Your task to perform on an android device: toggle notification dots Image 0: 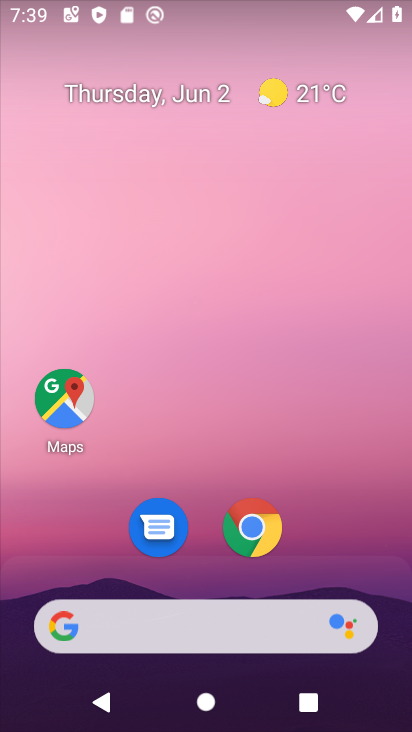
Step 0: drag from (366, 576) to (375, 94)
Your task to perform on an android device: toggle notification dots Image 1: 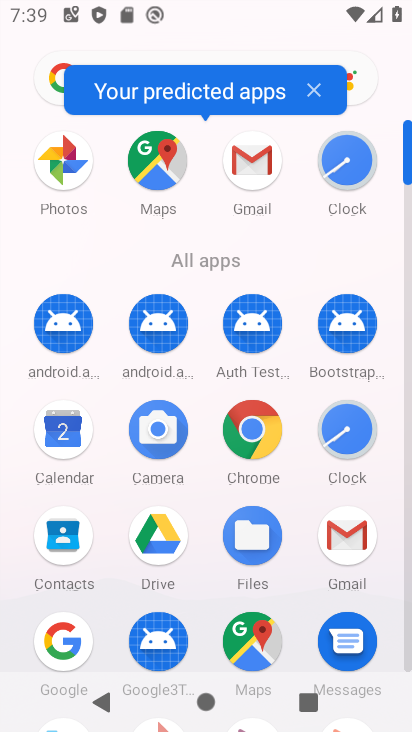
Step 1: drag from (324, 290) to (317, 95)
Your task to perform on an android device: toggle notification dots Image 2: 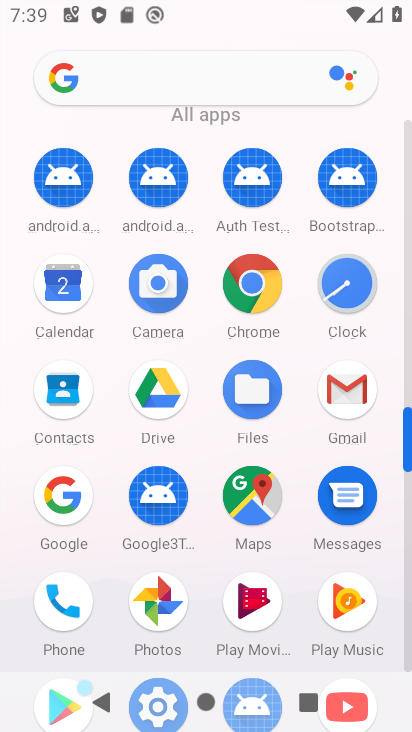
Step 2: drag from (287, 565) to (273, 358)
Your task to perform on an android device: toggle notification dots Image 3: 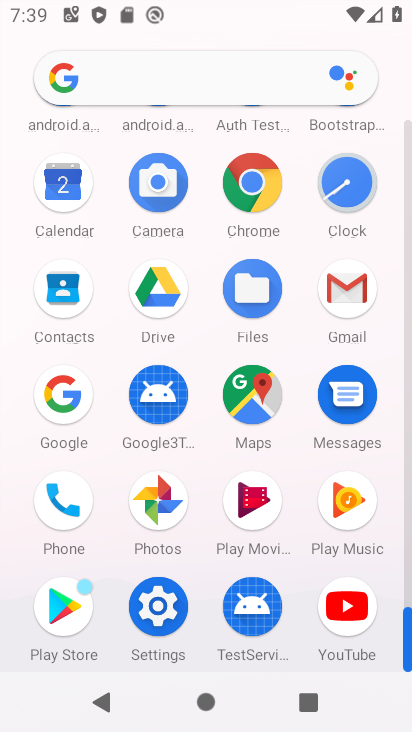
Step 3: click (163, 628)
Your task to perform on an android device: toggle notification dots Image 4: 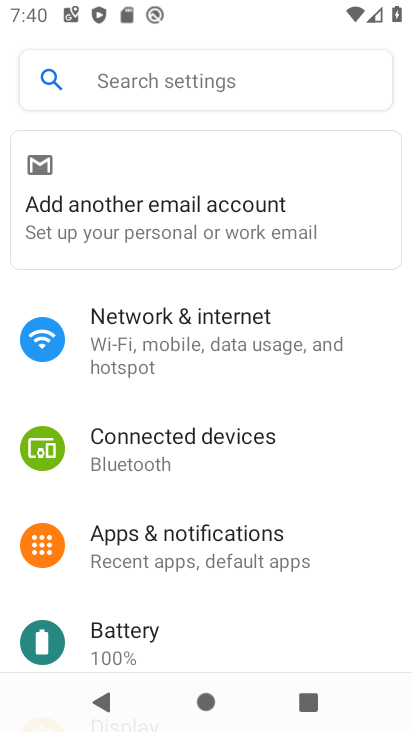
Step 4: click (156, 548)
Your task to perform on an android device: toggle notification dots Image 5: 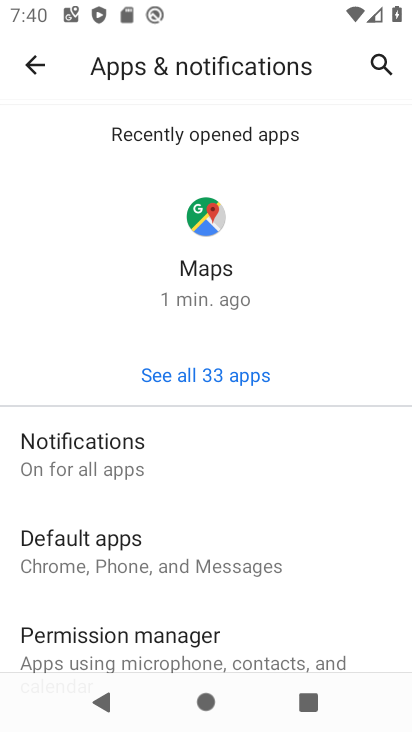
Step 5: click (179, 455)
Your task to perform on an android device: toggle notification dots Image 6: 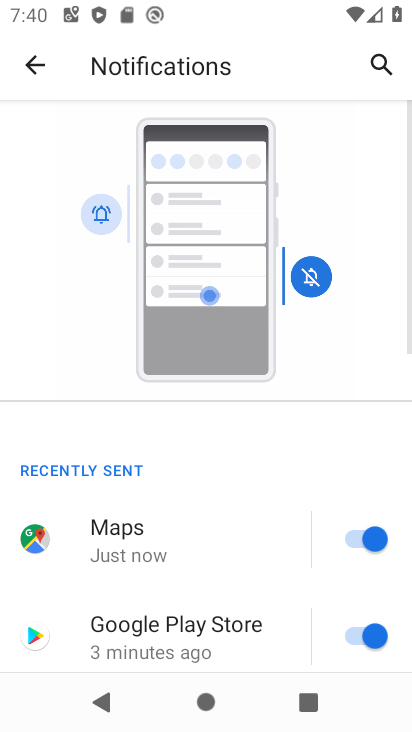
Step 6: drag from (204, 632) to (237, 327)
Your task to perform on an android device: toggle notification dots Image 7: 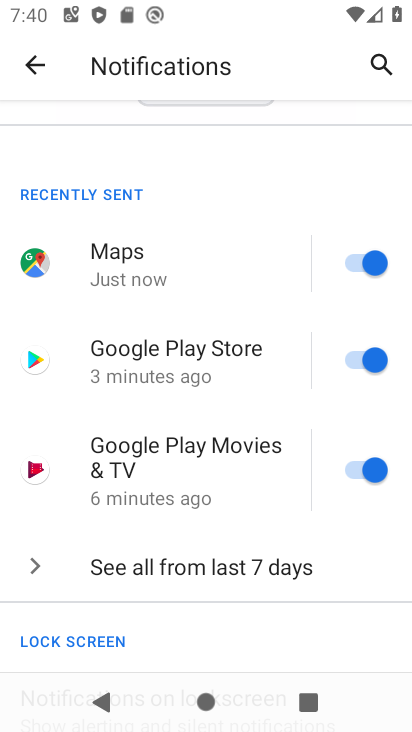
Step 7: drag from (230, 591) to (247, 164)
Your task to perform on an android device: toggle notification dots Image 8: 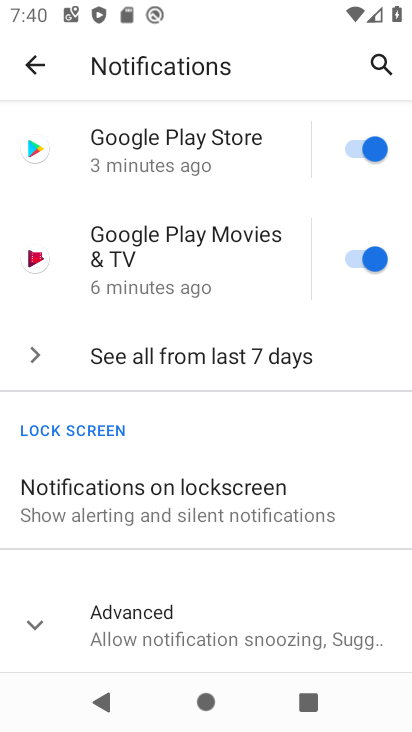
Step 8: click (219, 620)
Your task to perform on an android device: toggle notification dots Image 9: 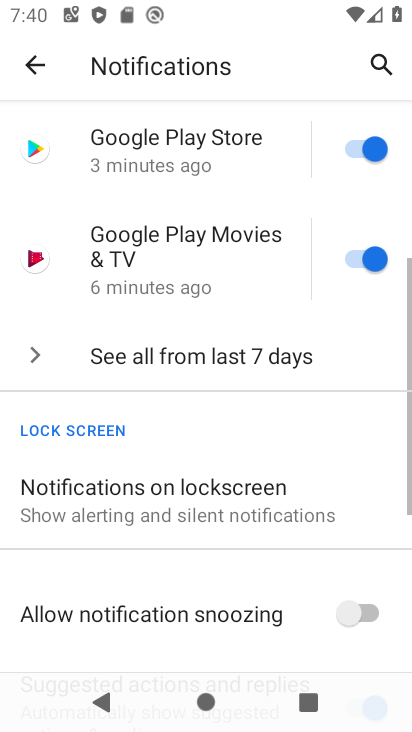
Step 9: drag from (218, 617) to (254, 302)
Your task to perform on an android device: toggle notification dots Image 10: 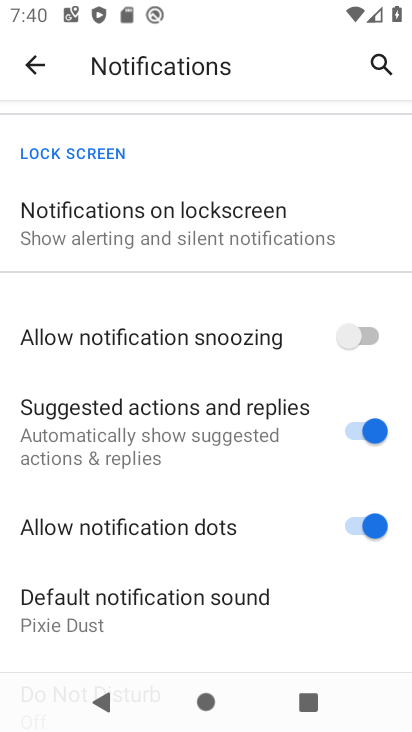
Step 10: click (355, 532)
Your task to perform on an android device: toggle notification dots Image 11: 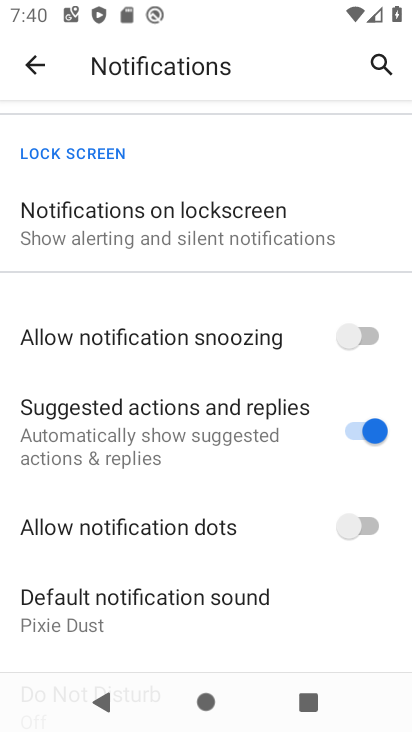
Step 11: task complete